Your task to perform on an android device: Search for Italian restaurants on Maps Image 0: 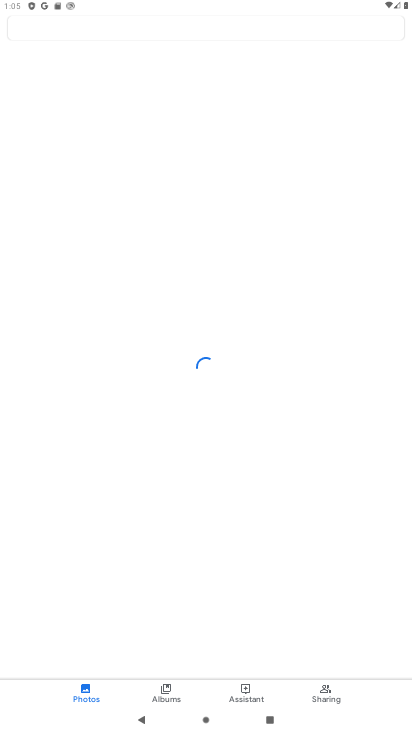
Step 0: press home button
Your task to perform on an android device: Search for Italian restaurants on Maps Image 1: 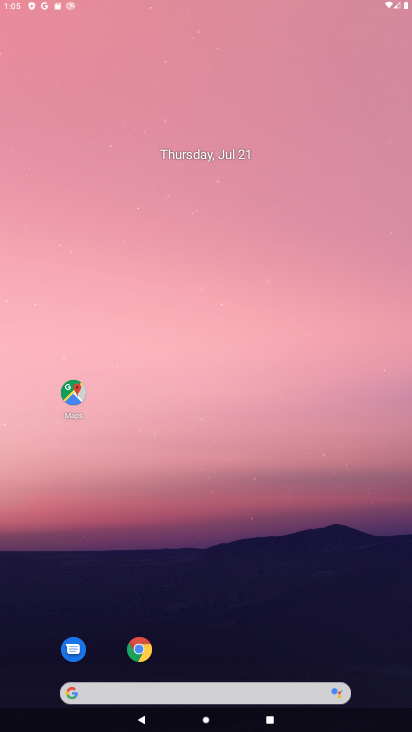
Step 1: press home button
Your task to perform on an android device: Search for Italian restaurants on Maps Image 2: 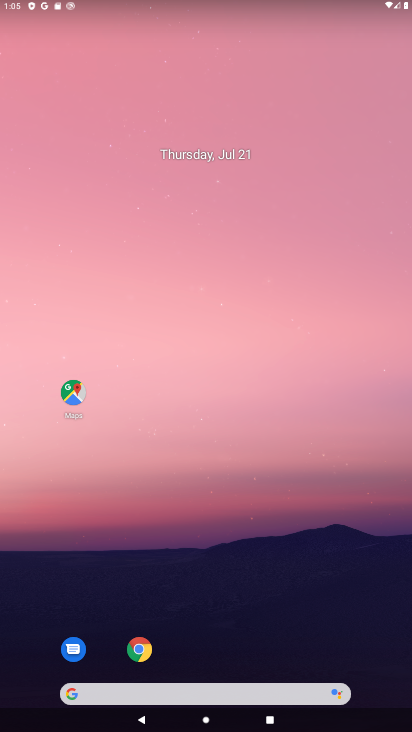
Step 2: click (74, 396)
Your task to perform on an android device: Search for Italian restaurants on Maps Image 3: 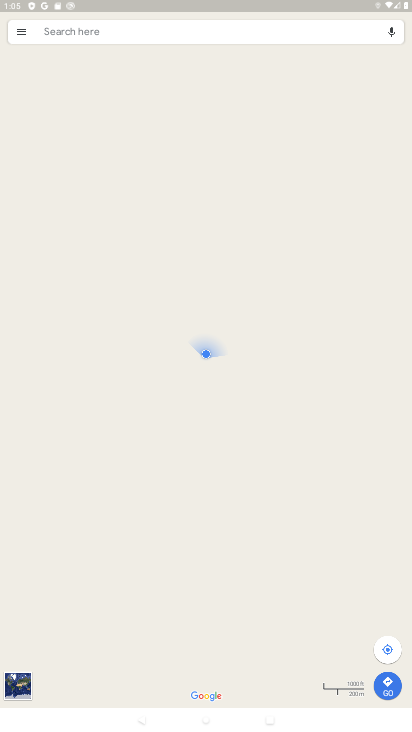
Step 3: click (172, 35)
Your task to perform on an android device: Search for Italian restaurants on Maps Image 4: 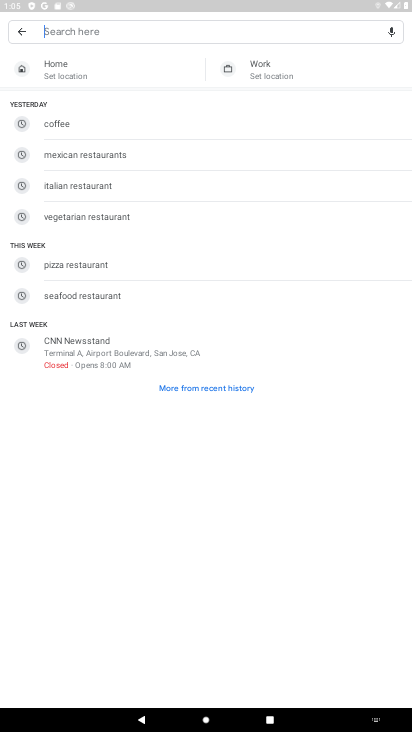
Step 4: type "italian restaurants"
Your task to perform on an android device: Search for Italian restaurants on Maps Image 5: 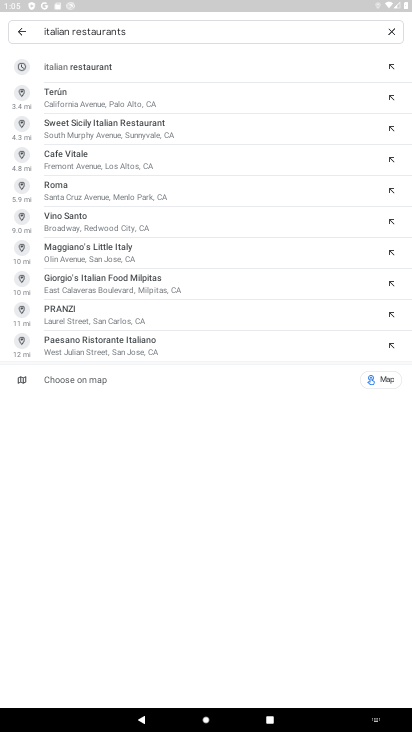
Step 5: click (92, 61)
Your task to perform on an android device: Search for Italian restaurants on Maps Image 6: 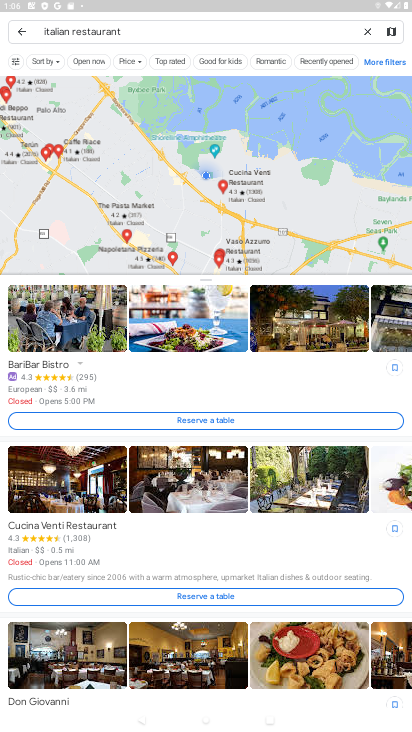
Step 6: task complete